Your task to perform on an android device: Go to privacy settings Image 0: 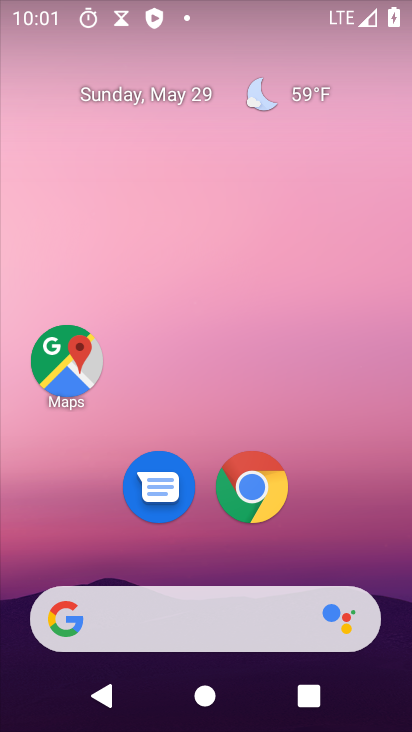
Step 0: drag from (327, 515) to (290, 60)
Your task to perform on an android device: Go to privacy settings Image 1: 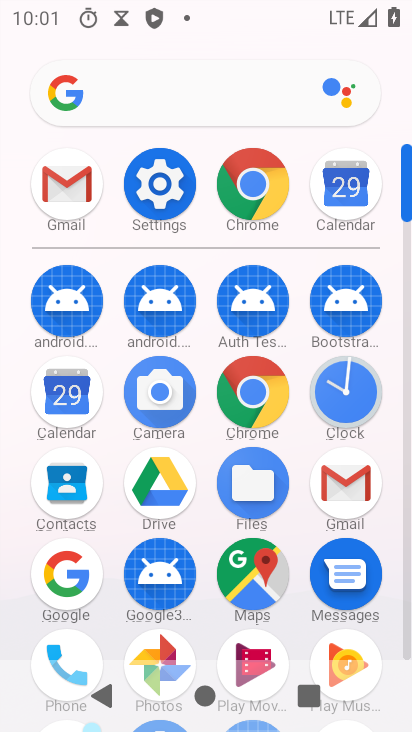
Step 1: click (165, 180)
Your task to perform on an android device: Go to privacy settings Image 2: 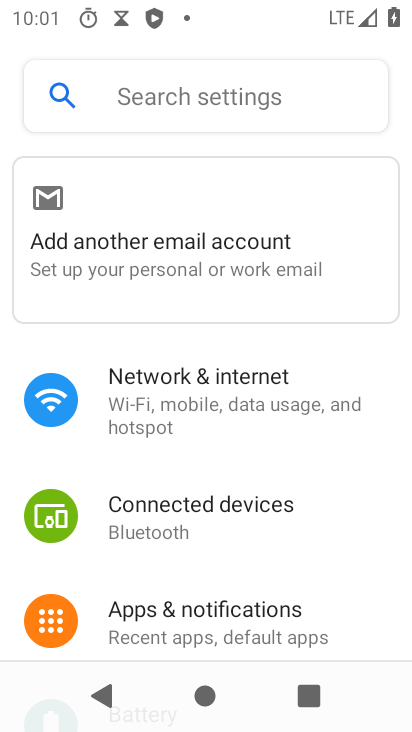
Step 2: drag from (196, 477) to (254, 301)
Your task to perform on an android device: Go to privacy settings Image 3: 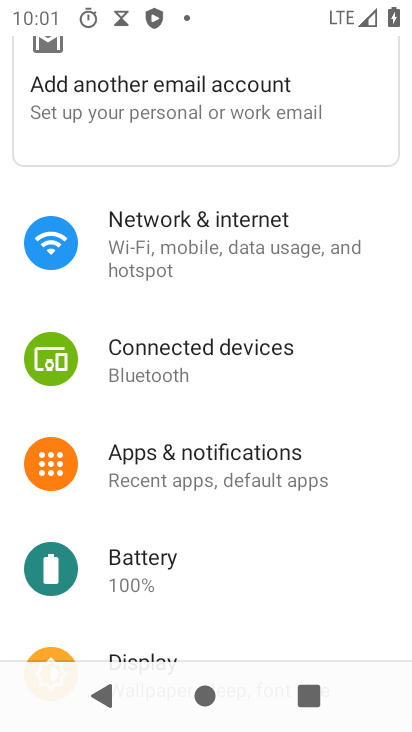
Step 3: drag from (180, 515) to (234, 396)
Your task to perform on an android device: Go to privacy settings Image 4: 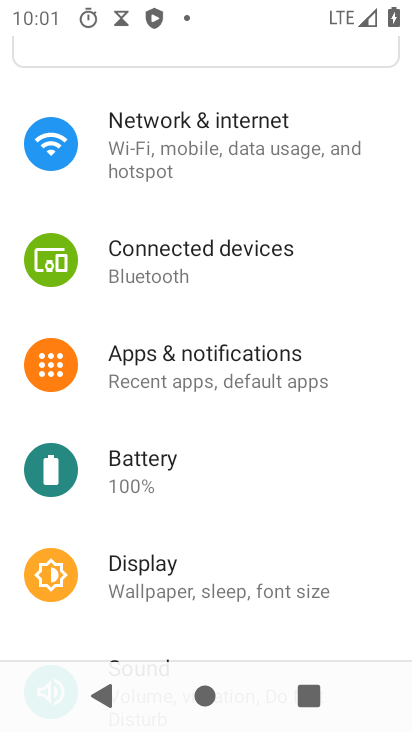
Step 4: drag from (219, 513) to (293, 348)
Your task to perform on an android device: Go to privacy settings Image 5: 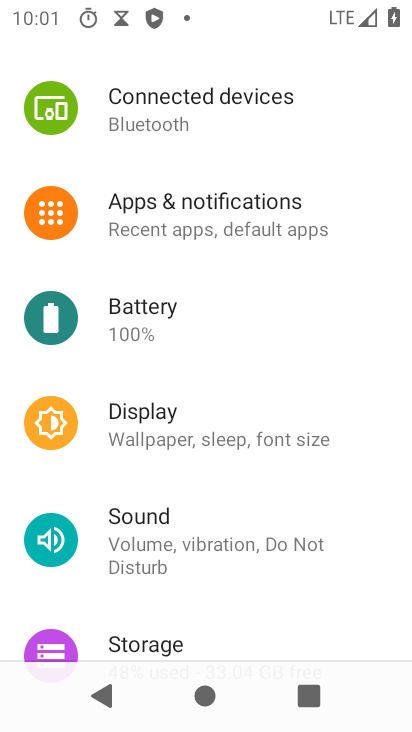
Step 5: drag from (205, 502) to (281, 323)
Your task to perform on an android device: Go to privacy settings Image 6: 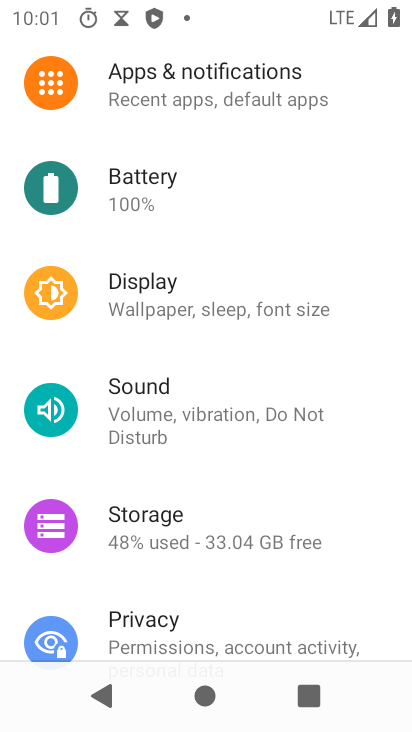
Step 6: drag from (205, 570) to (286, 393)
Your task to perform on an android device: Go to privacy settings Image 7: 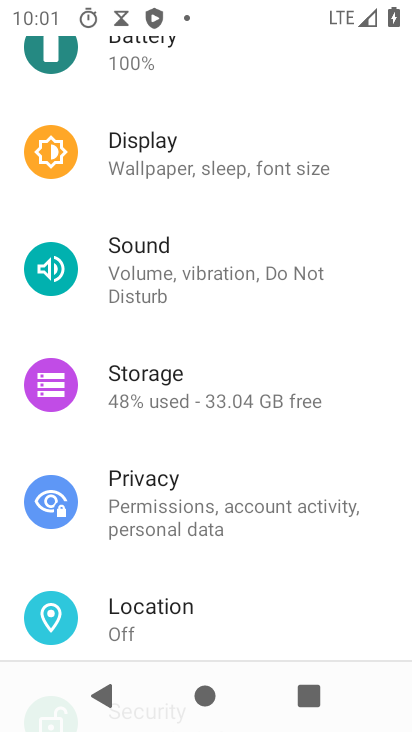
Step 7: click (166, 503)
Your task to perform on an android device: Go to privacy settings Image 8: 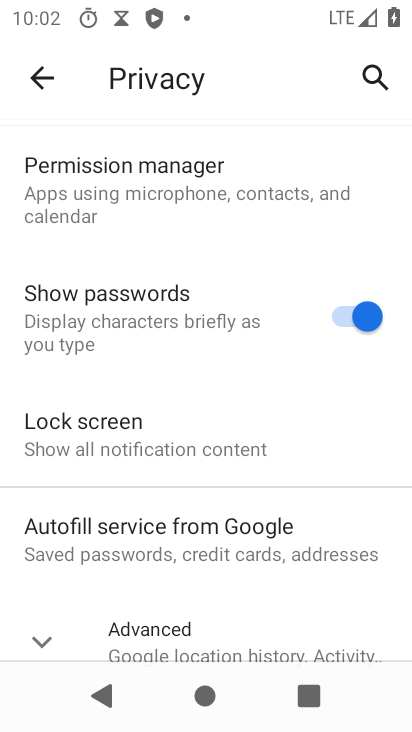
Step 8: task complete